Your task to perform on an android device: Open Google Chrome Image 0: 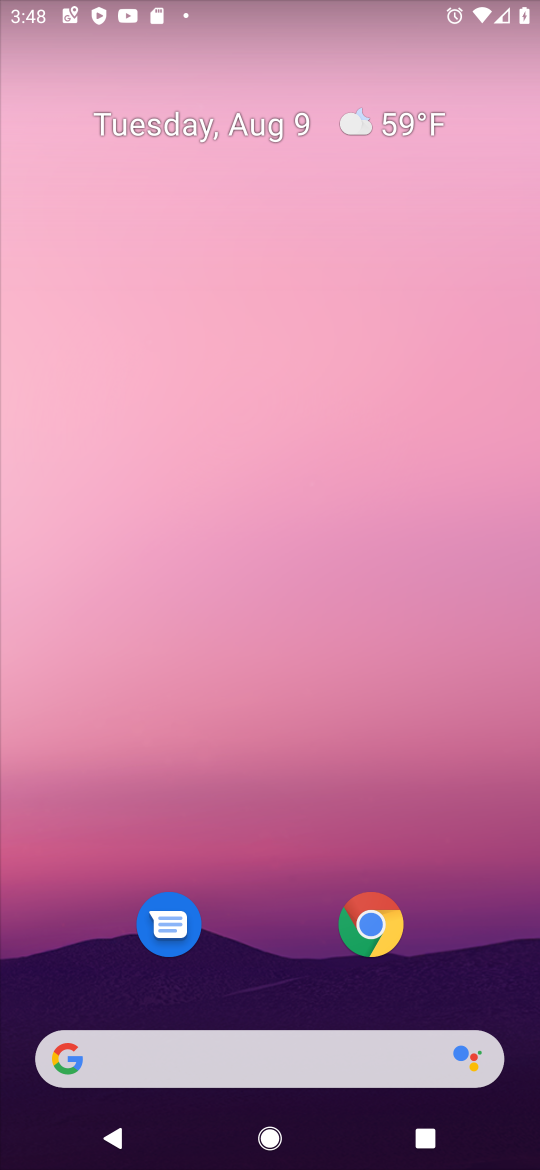
Step 0: click (377, 926)
Your task to perform on an android device: Open Google Chrome Image 1: 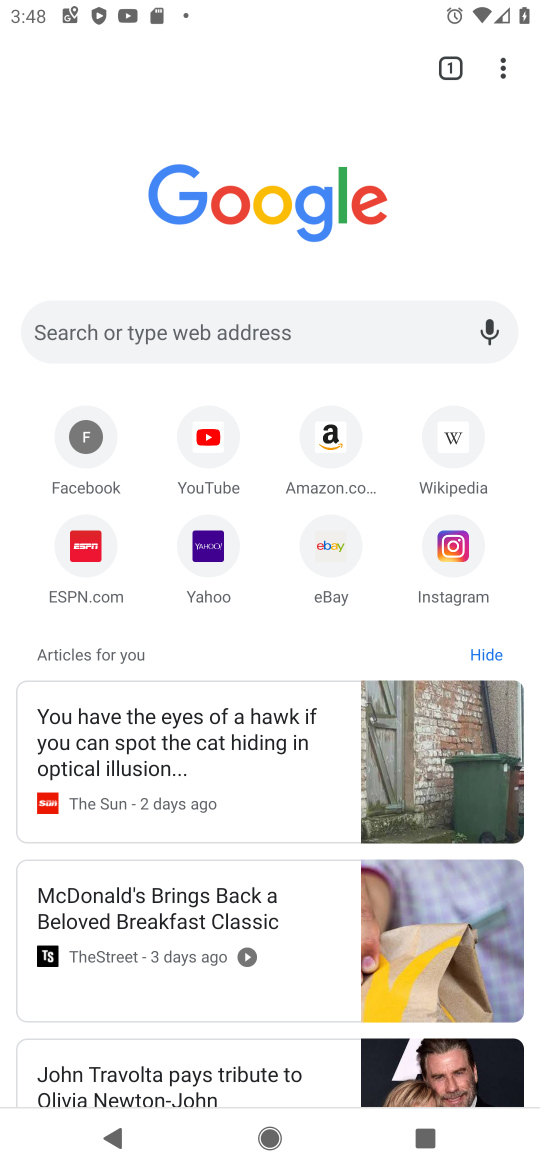
Step 1: task complete